Your task to perform on an android device: turn off javascript in the chrome app Image 0: 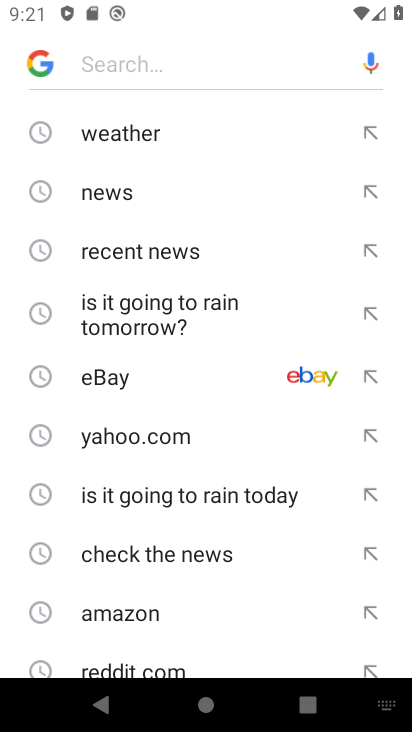
Step 0: press home button
Your task to perform on an android device: turn off javascript in the chrome app Image 1: 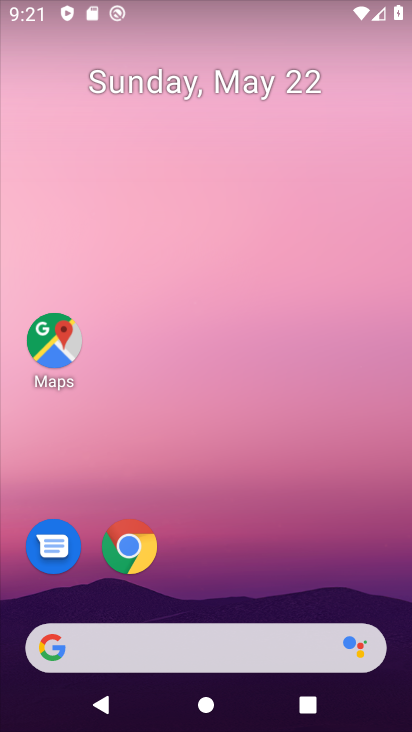
Step 1: drag from (191, 608) to (190, 139)
Your task to perform on an android device: turn off javascript in the chrome app Image 2: 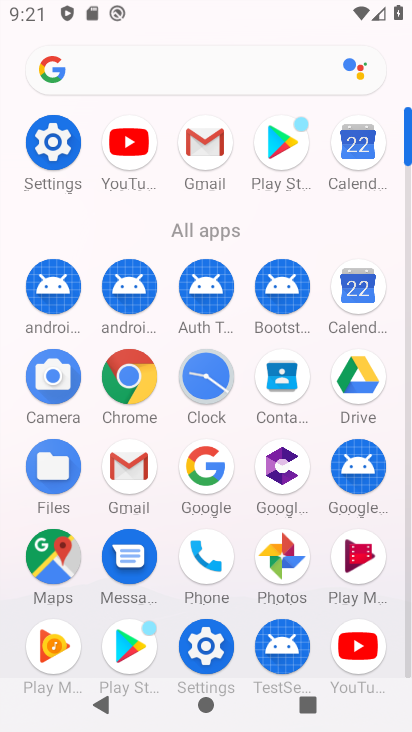
Step 2: click (143, 369)
Your task to perform on an android device: turn off javascript in the chrome app Image 3: 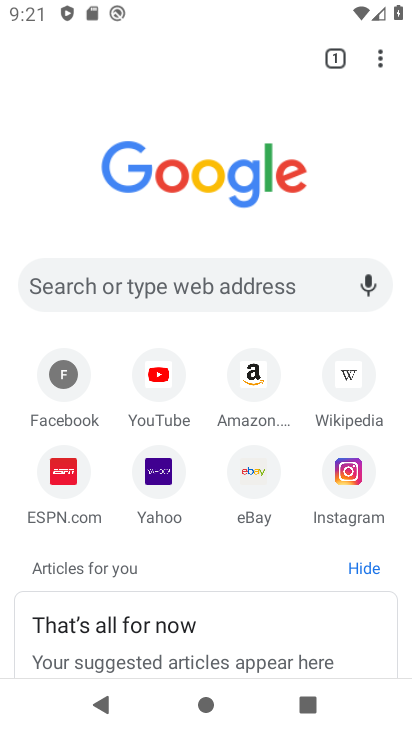
Step 3: click (381, 70)
Your task to perform on an android device: turn off javascript in the chrome app Image 4: 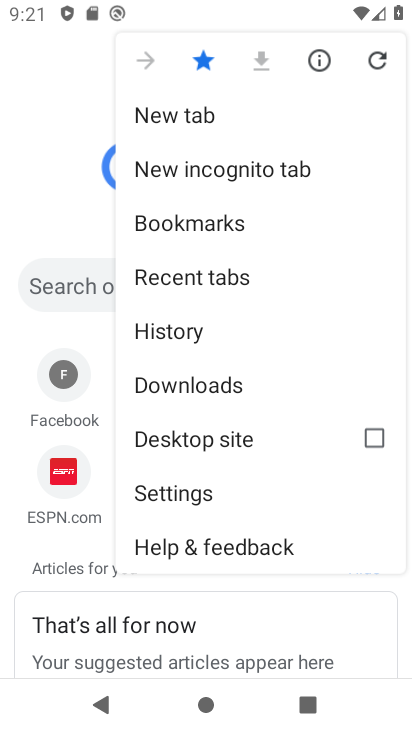
Step 4: click (279, 499)
Your task to perform on an android device: turn off javascript in the chrome app Image 5: 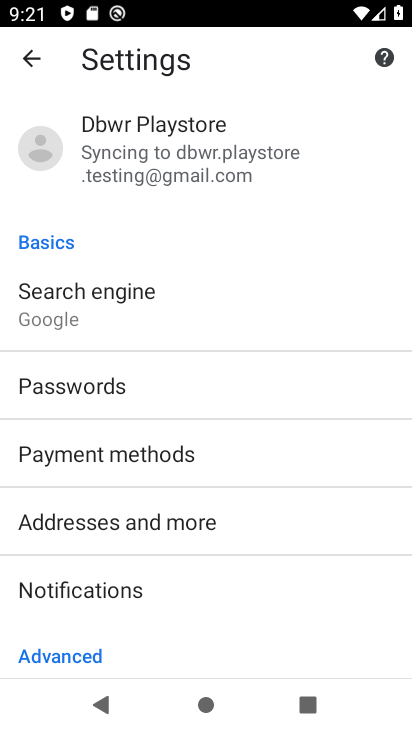
Step 5: drag from (261, 634) to (227, 104)
Your task to perform on an android device: turn off javascript in the chrome app Image 6: 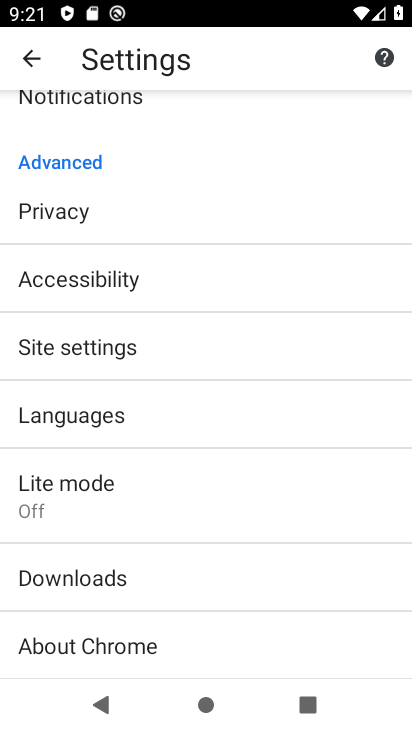
Step 6: click (180, 368)
Your task to perform on an android device: turn off javascript in the chrome app Image 7: 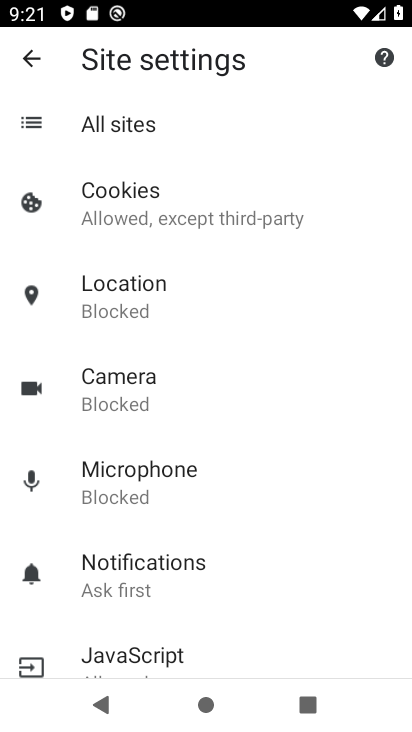
Step 7: click (185, 657)
Your task to perform on an android device: turn off javascript in the chrome app Image 8: 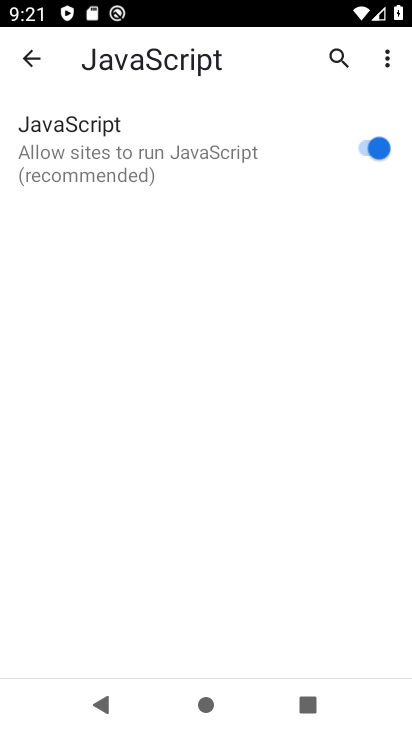
Step 8: click (364, 154)
Your task to perform on an android device: turn off javascript in the chrome app Image 9: 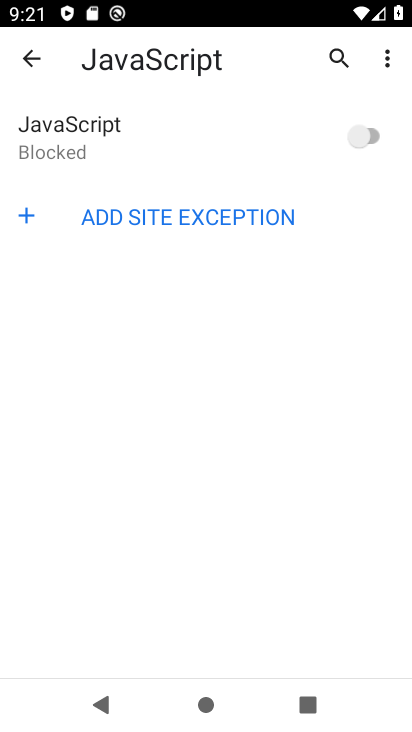
Step 9: task complete